Your task to perform on an android device: toggle wifi Image 0: 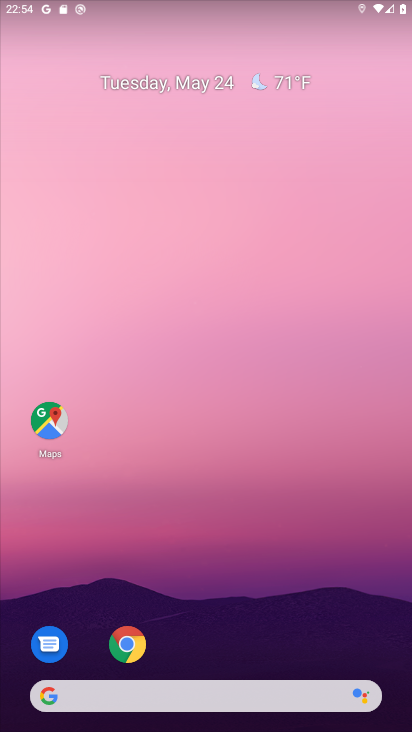
Step 0: drag from (230, 581) to (184, 23)
Your task to perform on an android device: toggle wifi Image 1: 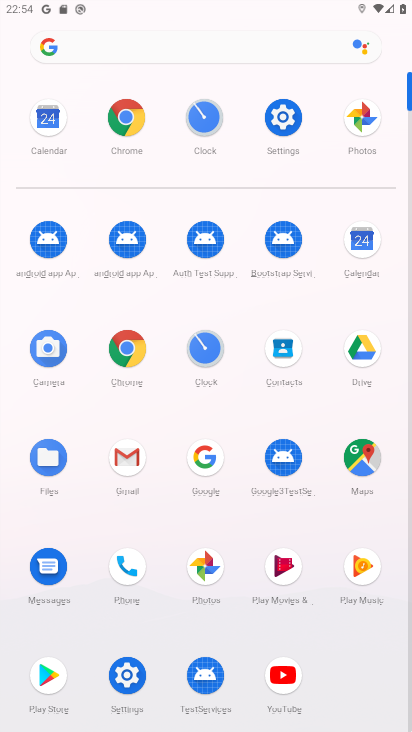
Step 1: click (290, 128)
Your task to perform on an android device: toggle wifi Image 2: 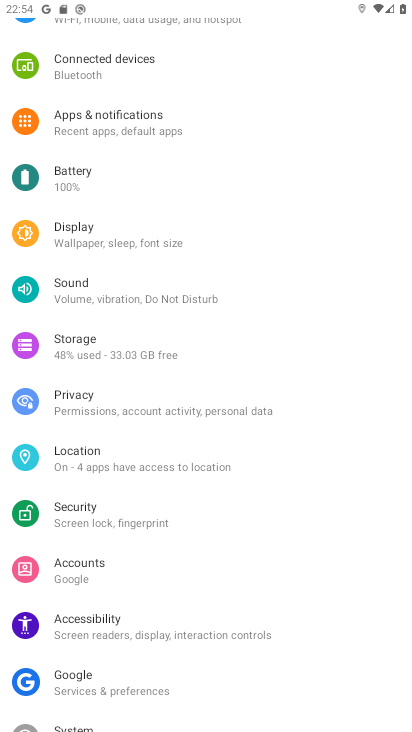
Step 2: drag from (220, 191) to (163, 725)
Your task to perform on an android device: toggle wifi Image 3: 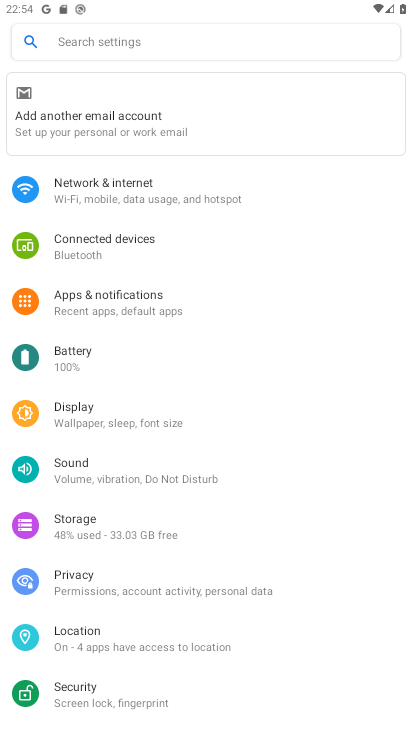
Step 3: click (111, 182)
Your task to perform on an android device: toggle wifi Image 4: 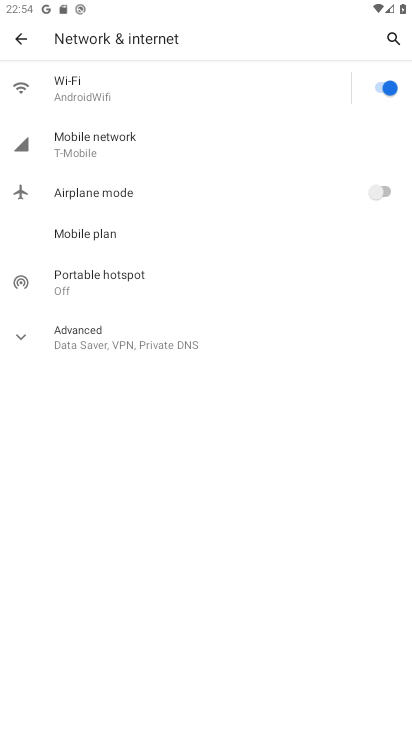
Step 4: click (386, 83)
Your task to perform on an android device: toggle wifi Image 5: 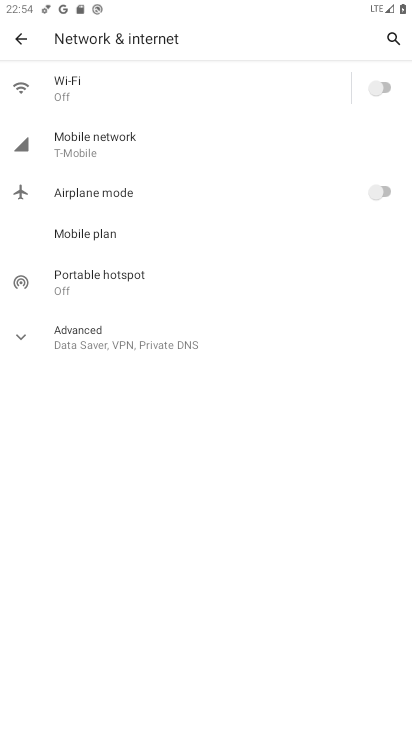
Step 5: task complete